Your task to perform on an android device: open app "Grab" (install if not already installed) and go to login screen Image 0: 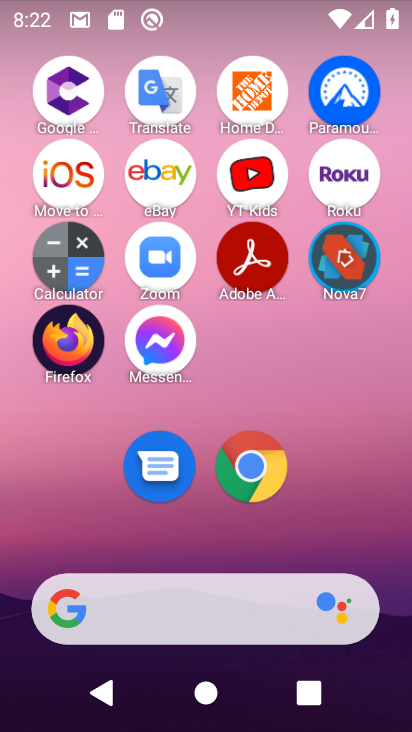
Step 0: drag from (180, 545) to (205, 69)
Your task to perform on an android device: open app "Grab" (install if not already installed) and go to login screen Image 1: 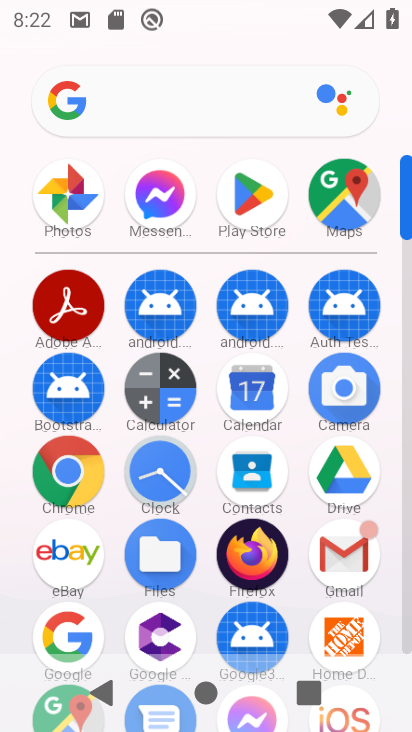
Step 1: click (247, 188)
Your task to perform on an android device: open app "Grab" (install if not already installed) and go to login screen Image 2: 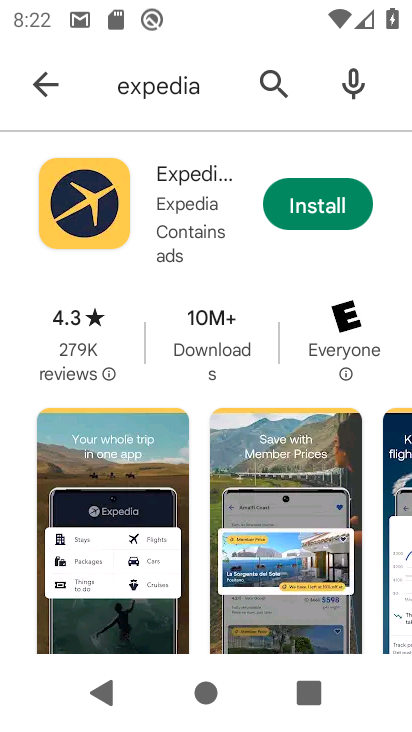
Step 2: click (180, 94)
Your task to perform on an android device: open app "Grab" (install if not already installed) and go to login screen Image 3: 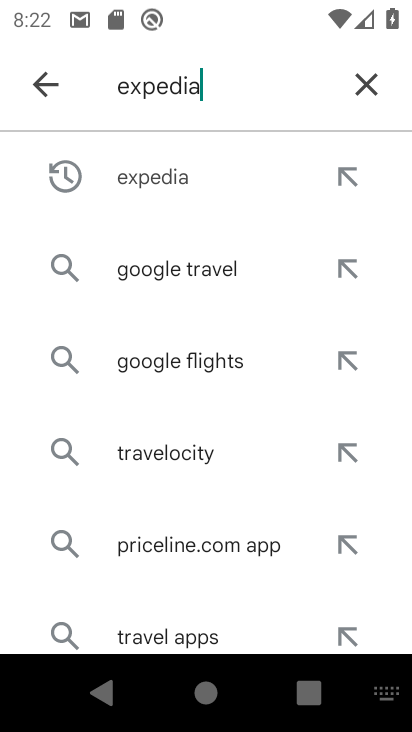
Step 3: click (366, 84)
Your task to perform on an android device: open app "Grab" (install if not already installed) and go to login screen Image 4: 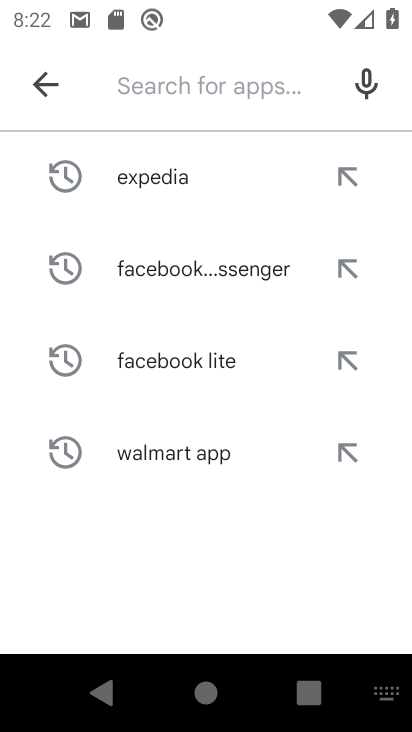
Step 4: type "grab"
Your task to perform on an android device: open app "Grab" (install if not already installed) and go to login screen Image 5: 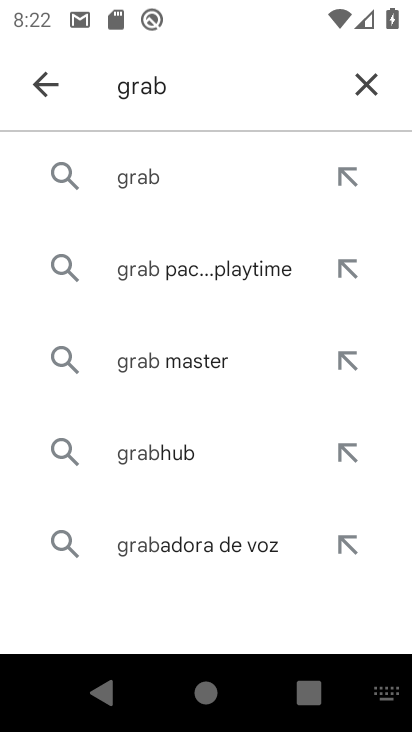
Step 5: click (146, 177)
Your task to perform on an android device: open app "Grab" (install if not already installed) and go to login screen Image 6: 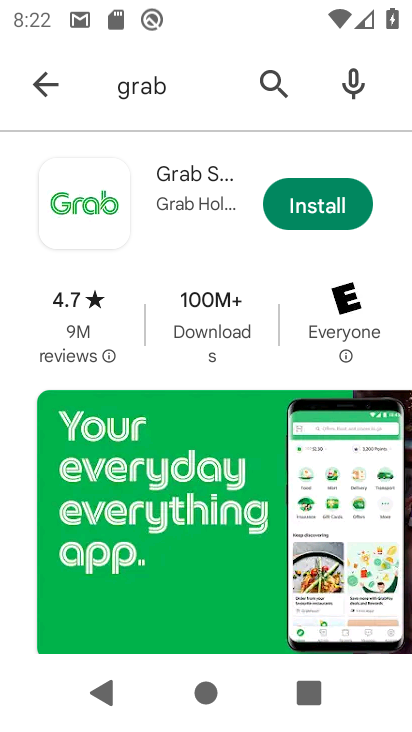
Step 6: click (317, 212)
Your task to perform on an android device: open app "Grab" (install if not already installed) and go to login screen Image 7: 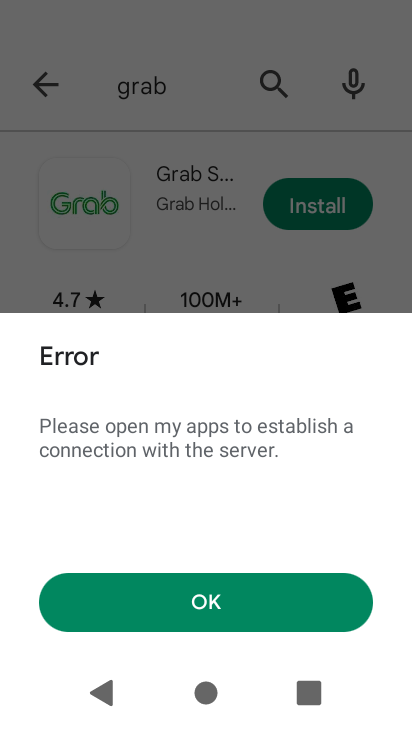
Step 7: click (243, 595)
Your task to perform on an android device: open app "Grab" (install if not already installed) and go to login screen Image 8: 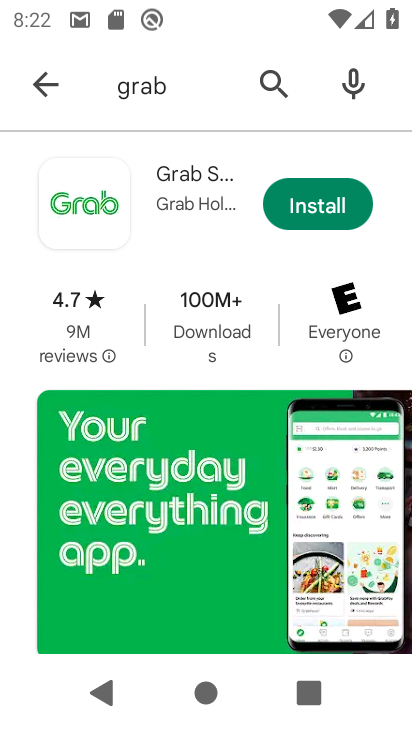
Step 8: click (289, 200)
Your task to perform on an android device: open app "Grab" (install if not already installed) and go to login screen Image 9: 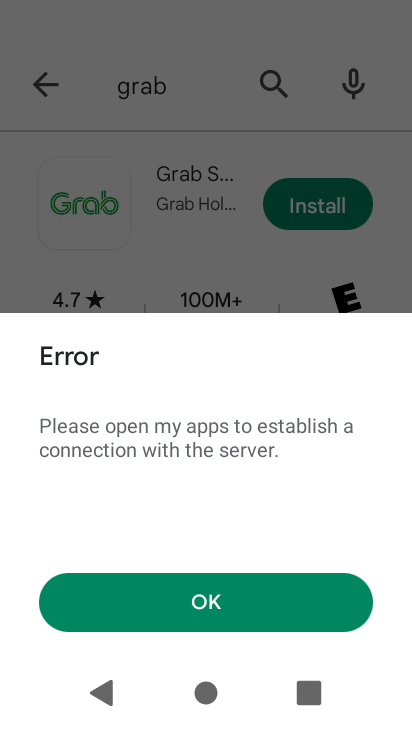
Step 9: click (210, 612)
Your task to perform on an android device: open app "Grab" (install if not already installed) and go to login screen Image 10: 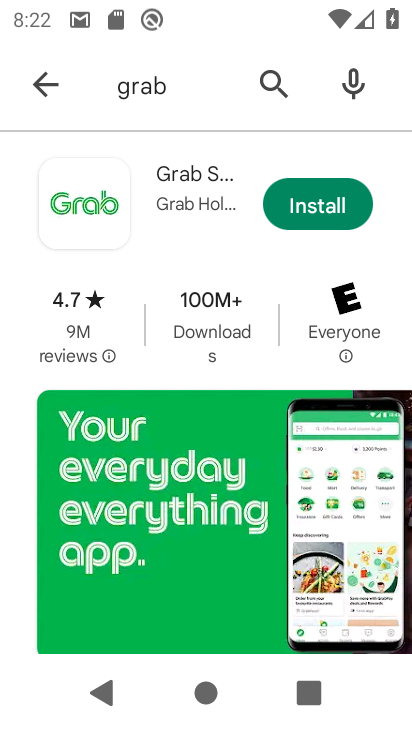
Step 10: click (297, 206)
Your task to perform on an android device: open app "Grab" (install if not already installed) and go to login screen Image 11: 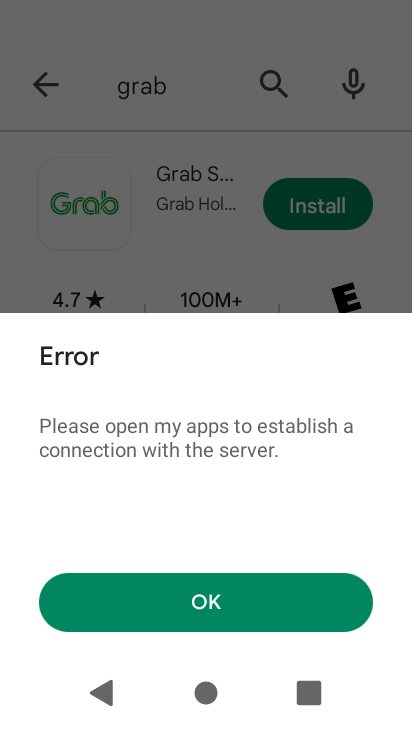
Step 11: task complete